Your task to perform on an android device: check battery use Image 0: 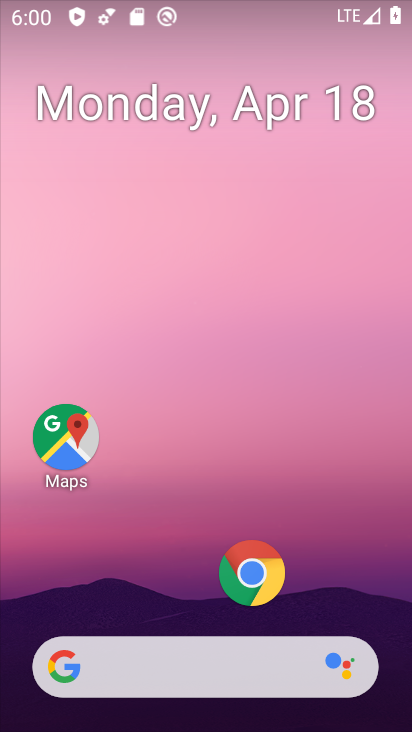
Step 0: drag from (202, 540) to (373, 103)
Your task to perform on an android device: check battery use Image 1: 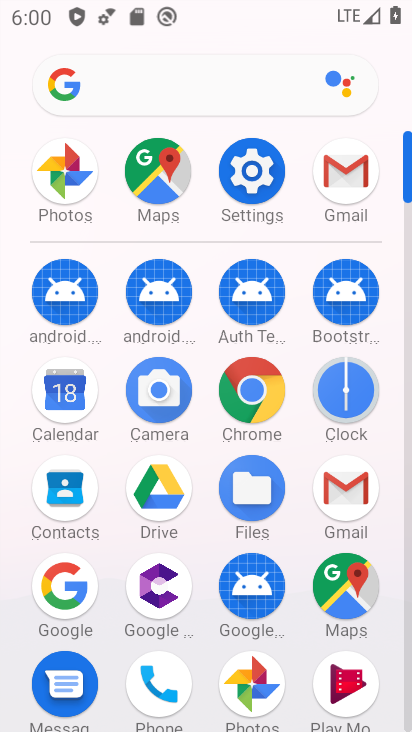
Step 1: click (263, 250)
Your task to perform on an android device: check battery use Image 2: 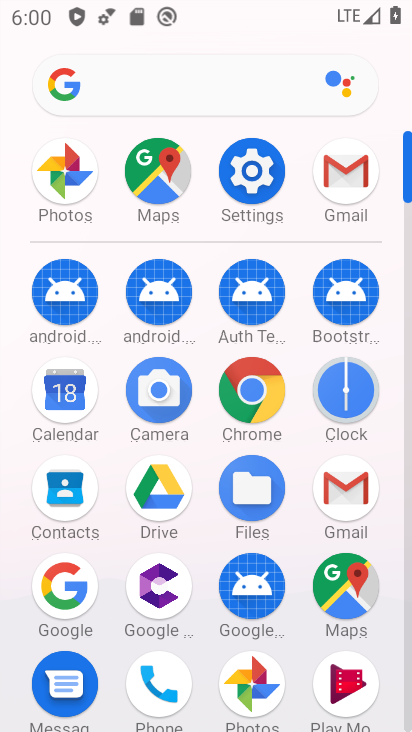
Step 2: click (259, 170)
Your task to perform on an android device: check battery use Image 3: 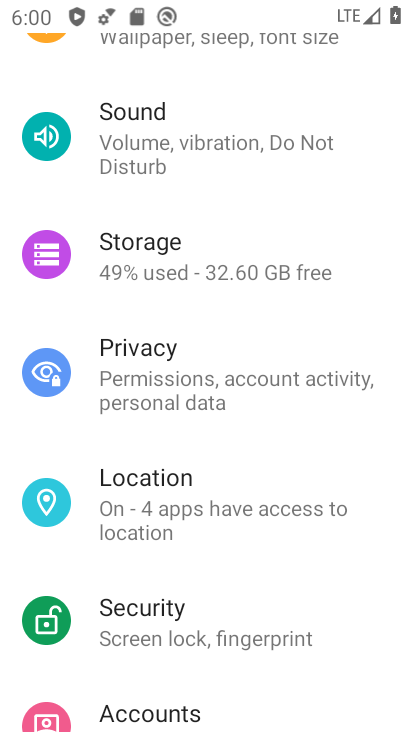
Step 3: drag from (259, 138) to (240, 636)
Your task to perform on an android device: check battery use Image 4: 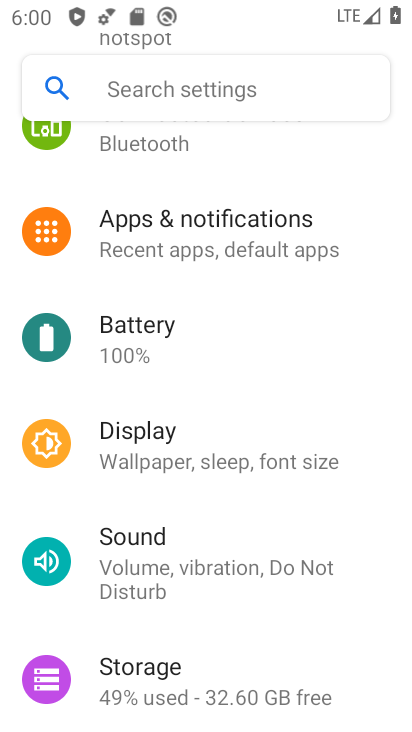
Step 4: click (180, 346)
Your task to perform on an android device: check battery use Image 5: 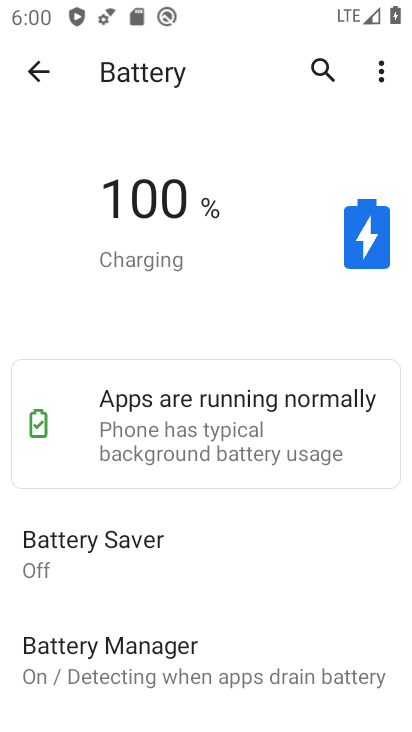
Step 5: click (384, 65)
Your task to perform on an android device: check battery use Image 6: 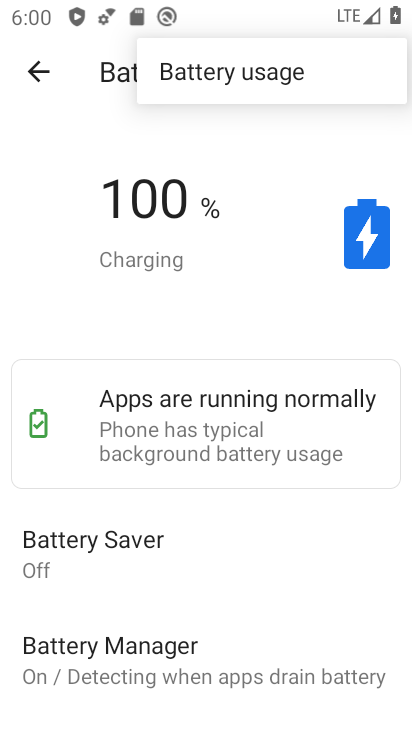
Step 6: click (267, 69)
Your task to perform on an android device: check battery use Image 7: 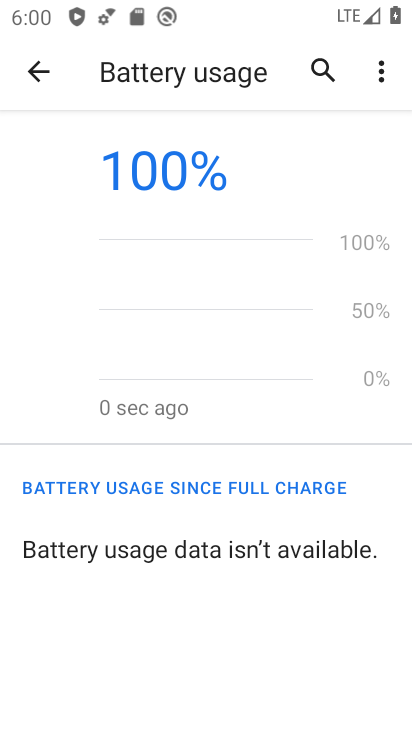
Step 7: task complete